Your task to perform on an android device: turn on wifi Image 0: 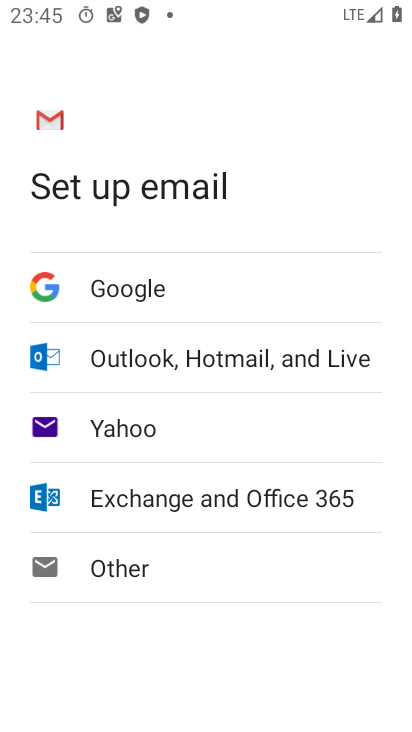
Step 0: press home button
Your task to perform on an android device: turn on wifi Image 1: 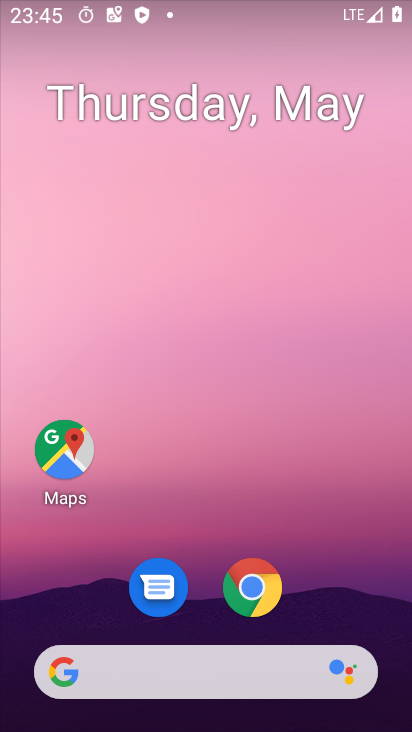
Step 1: drag from (358, 633) to (401, 1)
Your task to perform on an android device: turn on wifi Image 2: 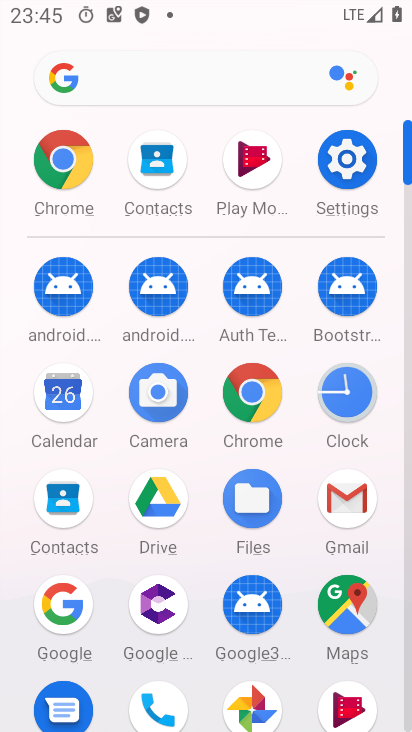
Step 2: click (359, 172)
Your task to perform on an android device: turn on wifi Image 3: 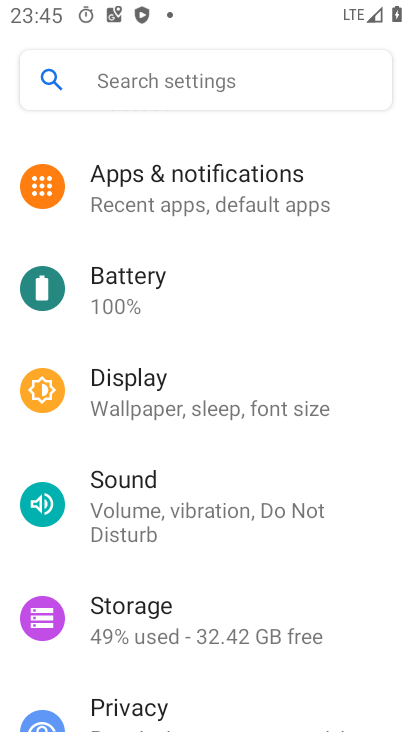
Step 3: drag from (373, 246) to (383, 517)
Your task to perform on an android device: turn on wifi Image 4: 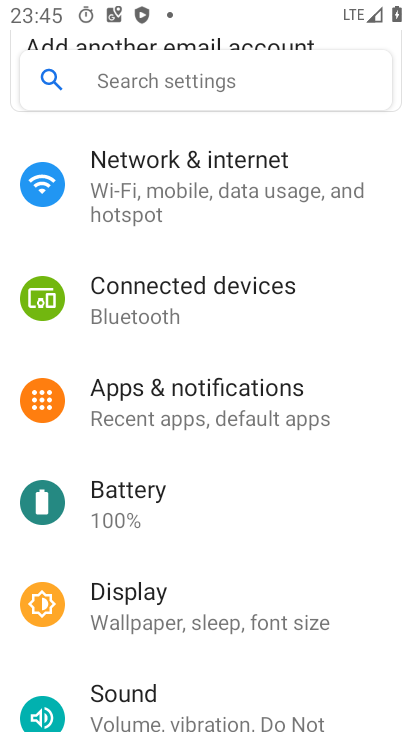
Step 4: click (165, 190)
Your task to perform on an android device: turn on wifi Image 5: 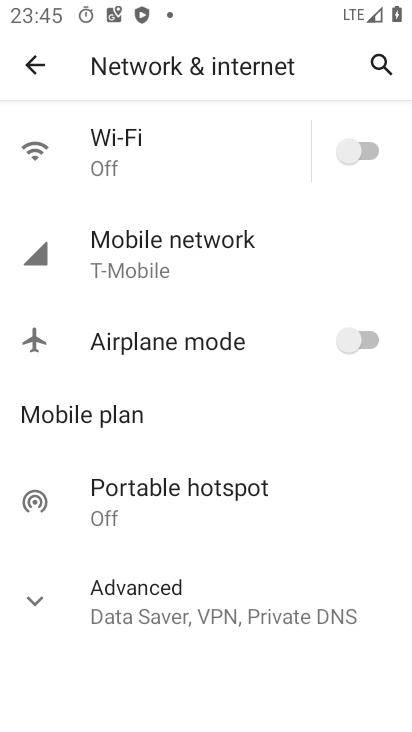
Step 5: click (352, 157)
Your task to perform on an android device: turn on wifi Image 6: 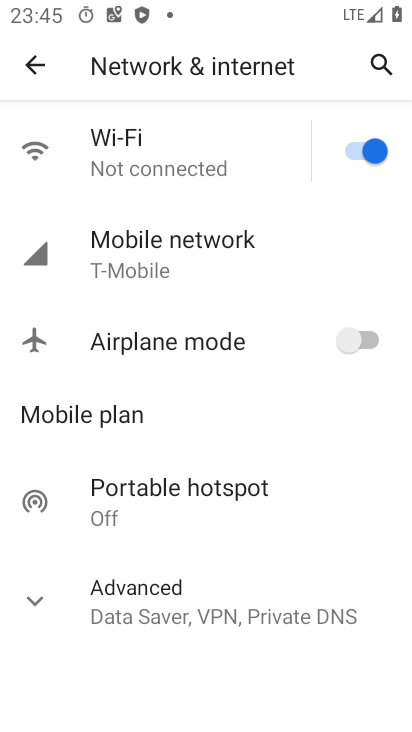
Step 6: task complete